Your task to perform on an android device: create a new album in the google photos Image 0: 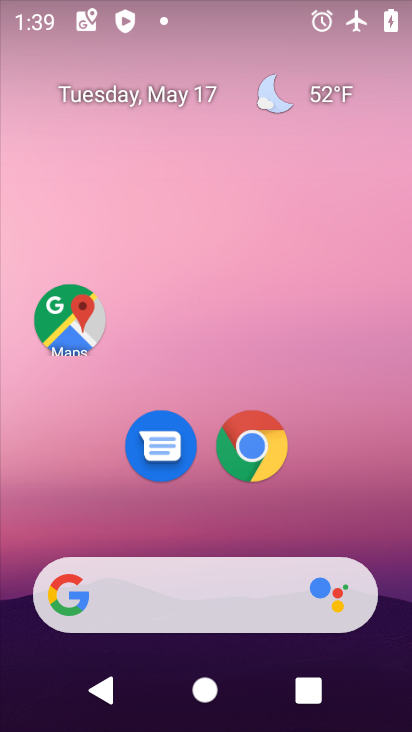
Step 0: drag from (197, 454) to (218, 228)
Your task to perform on an android device: create a new album in the google photos Image 1: 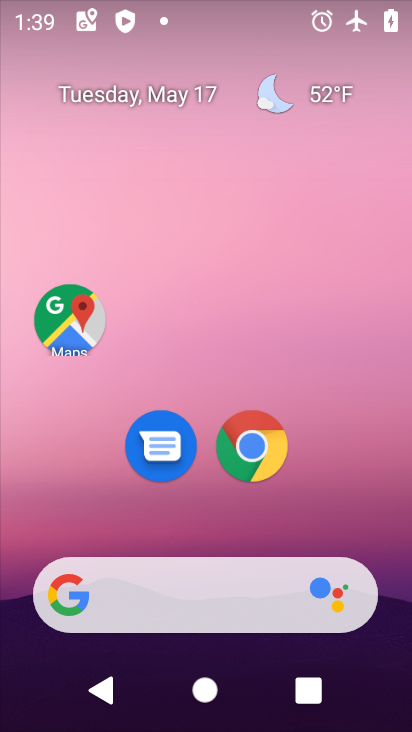
Step 1: drag from (119, 533) to (144, 177)
Your task to perform on an android device: create a new album in the google photos Image 2: 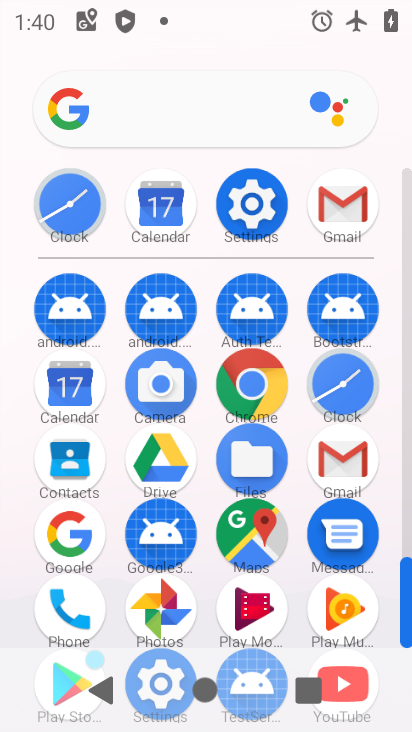
Step 2: click (160, 609)
Your task to perform on an android device: create a new album in the google photos Image 3: 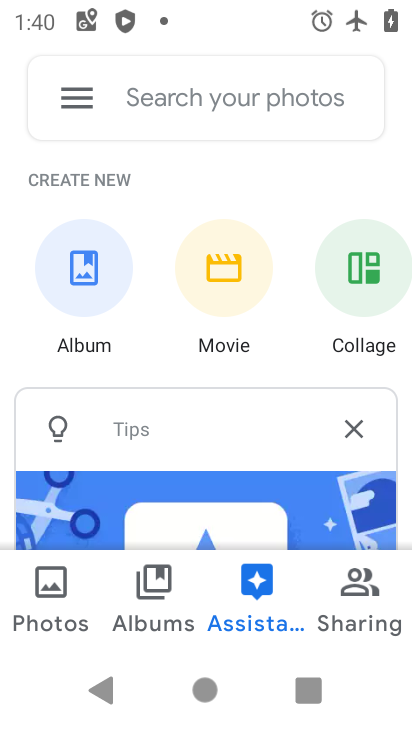
Step 3: click (89, 263)
Your task to perform on an android device: create a new album in the google photos Image 4: 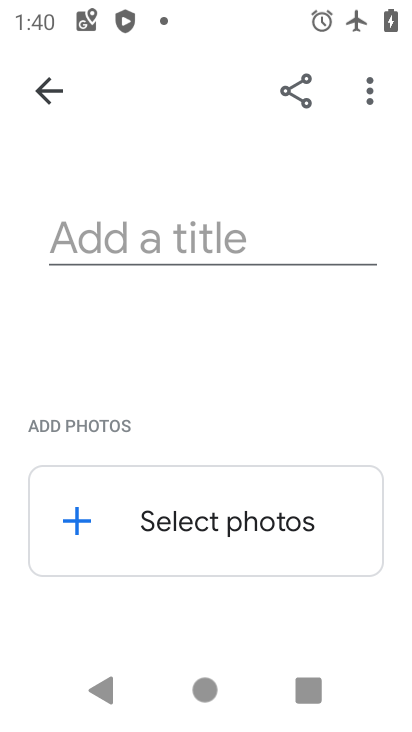
Step 4: click (114, 246)
Your task to perform on an android device: create a new album in the google photos Image 5: 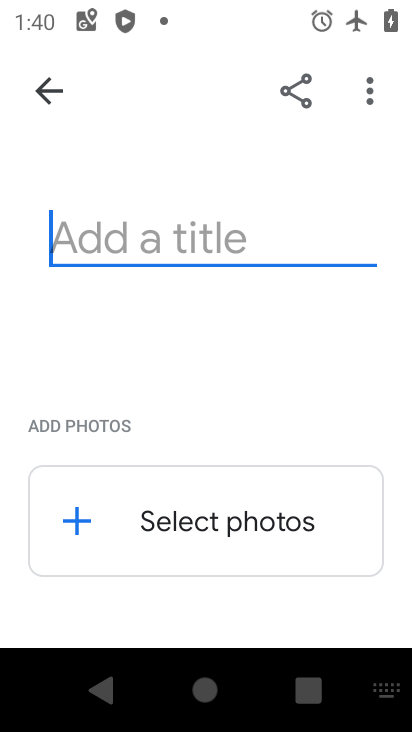
Step 5: type "hnh"
Your task to perform on an android device: create a new album in the google photos Image 6: 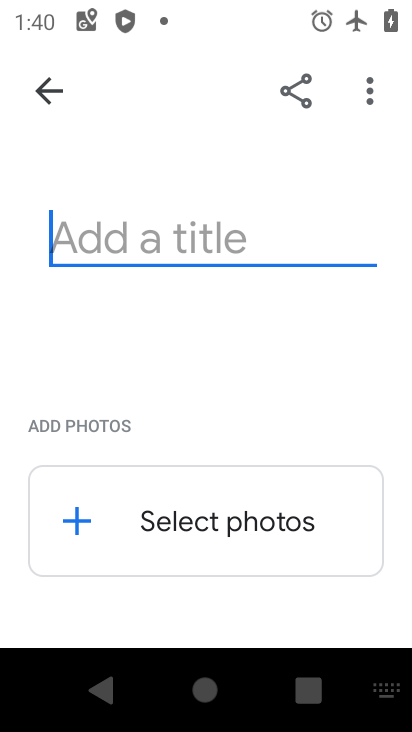
Step 6: click (75, 520)
Your task to perform on an android device: create a new album in the google photos Image 7: 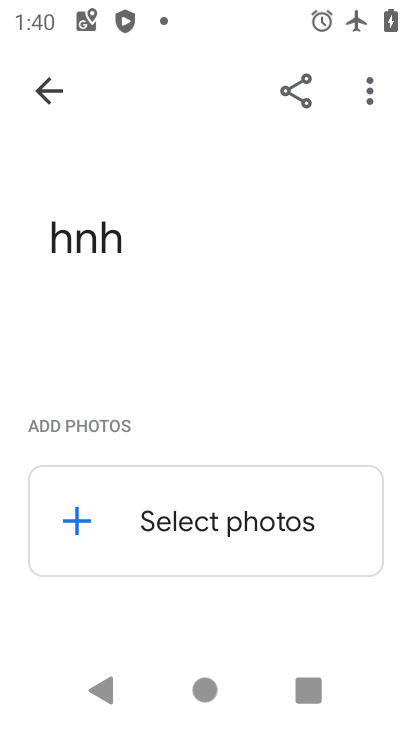
Step 7: click (218, 524)
Your task to perform on an android device: create a new album in the google photos Image 8: 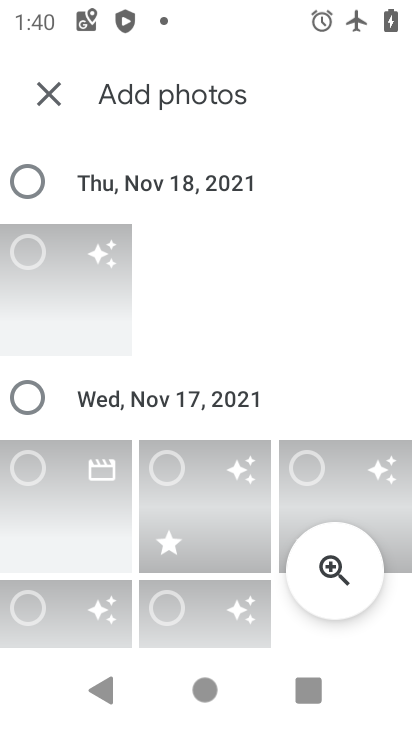
Step 8: click (31, 250)
Your task to perform on an android device: create a new album in the google photos Image 9: 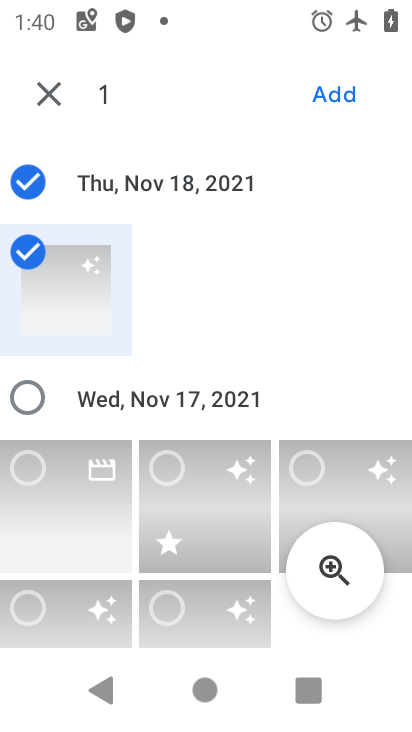
Step 9: click (346, 92)
Your task to perform on an android device: create a new album in the google photos Image 10: 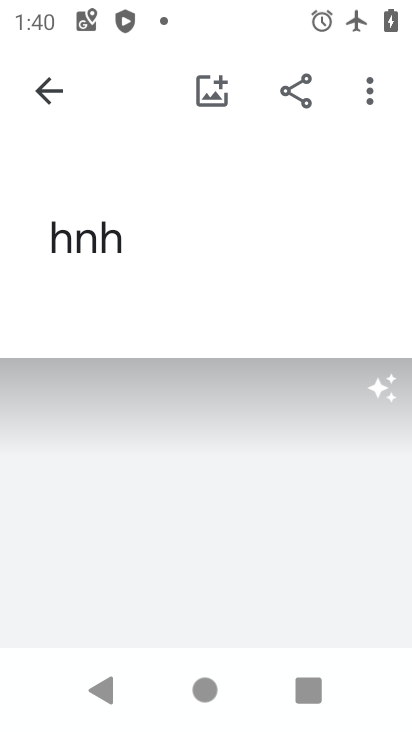
Step 10: task complete